Your task to perform on an android device: Go to calendar. Show me events next week Image 0: 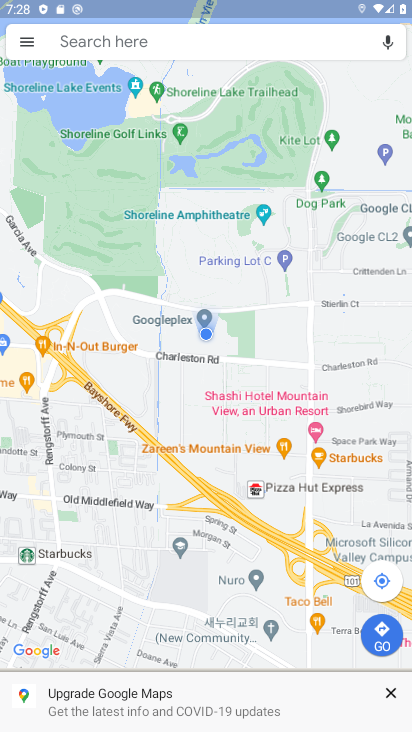
Step 0: press home button
Your task to perform on an android device: Go to calendar. Show me events next week Image 1: 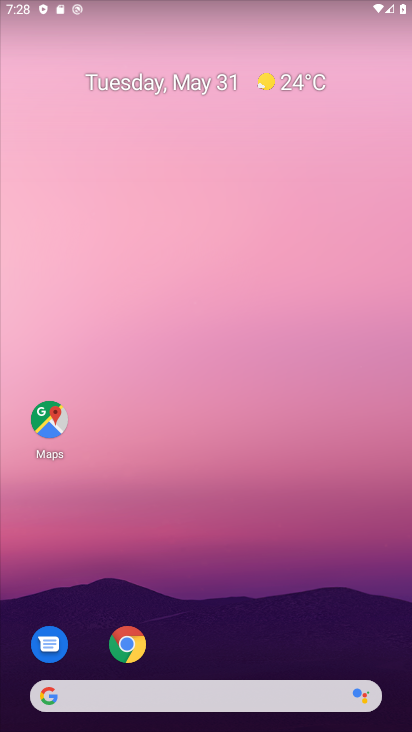
Step 1: drag from (366, 616) to (307, 138)
Your task to perform on an android device: Go to calendar. Show me events next week Image 2: 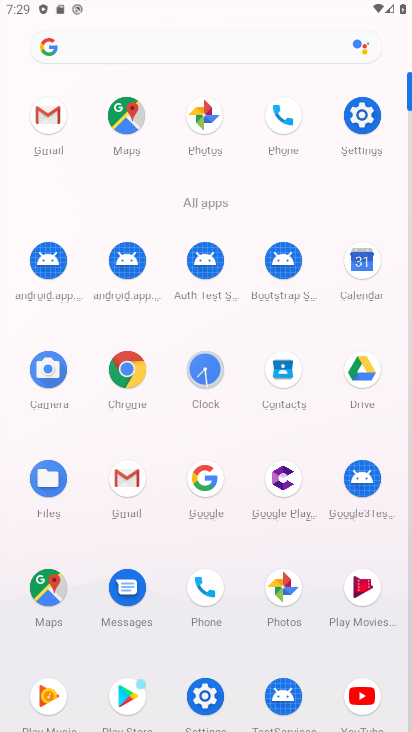
Step 2: click (358, 264)
Your task to perform on an android device: Go to calendar. Show me events next week Image 3: 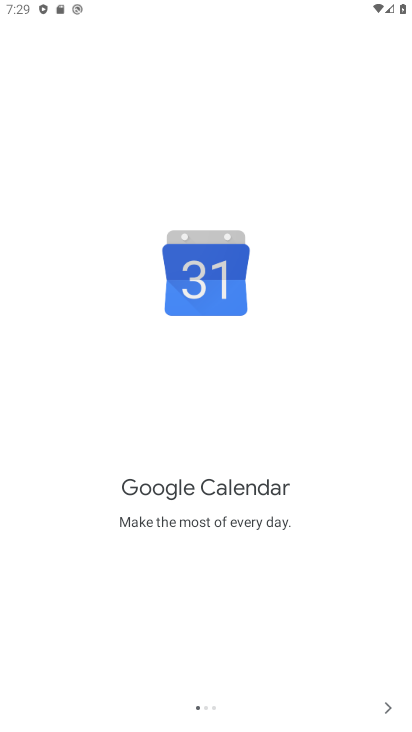
Step 3: click (378, 695)
Your task to perform on an android device: Go to calendar. Show me events next week Image 4: 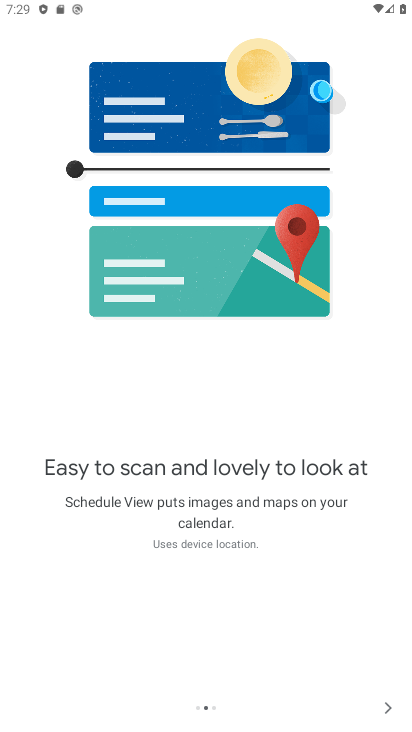
Step 4: click (377, 696)
Your task to perform on an android device: Go to calendar. Show me events next week Image 5: 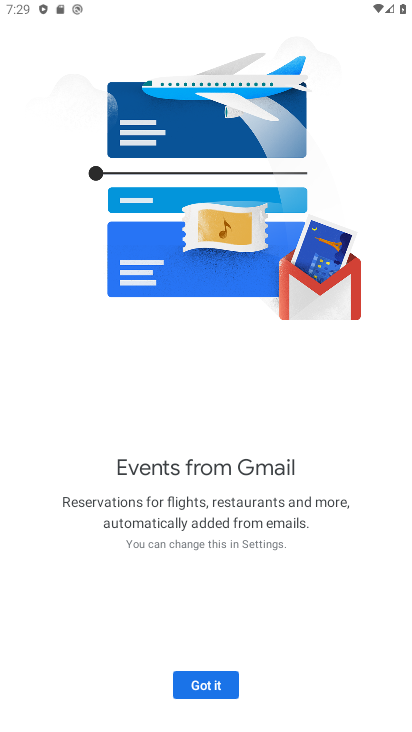
Step 5: click (215, 679)
Your task to perform on an android device: Go to calendar. Show me events next week Image 6: 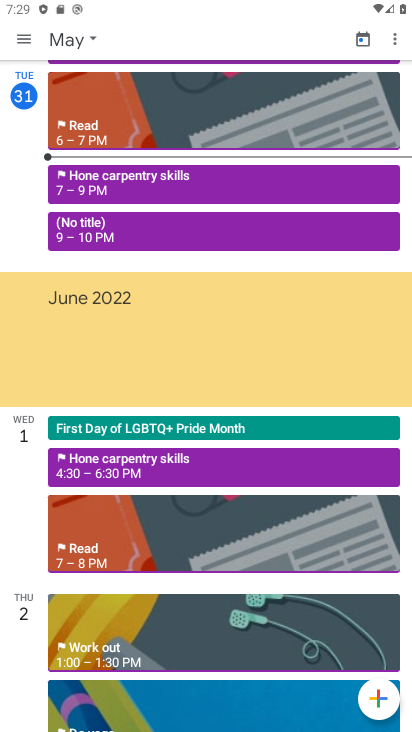
Step 6: click (64, 43)
Your task to perform on an android device: Go to calendar. Show me events next week Image 7: 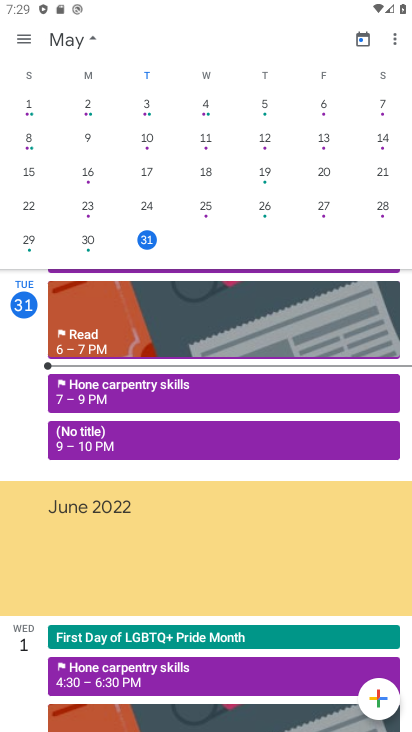
Step 7: task complete